Your task to perform on an android device: add a contact in the contacts app Image 0: 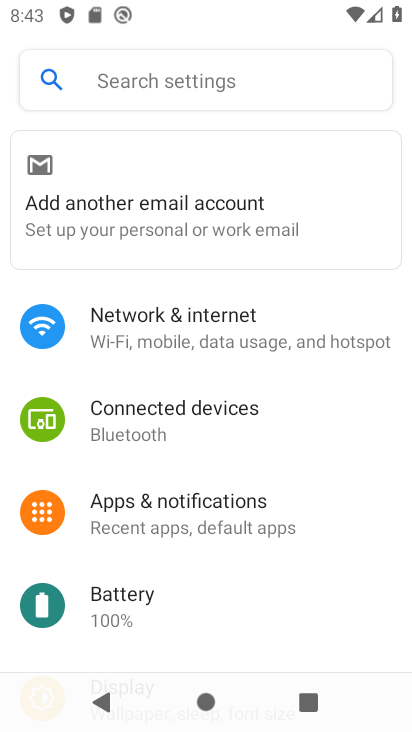
Step 0: press home button
Your task to perform on an android device: add a contact in the contacts app Image 1: 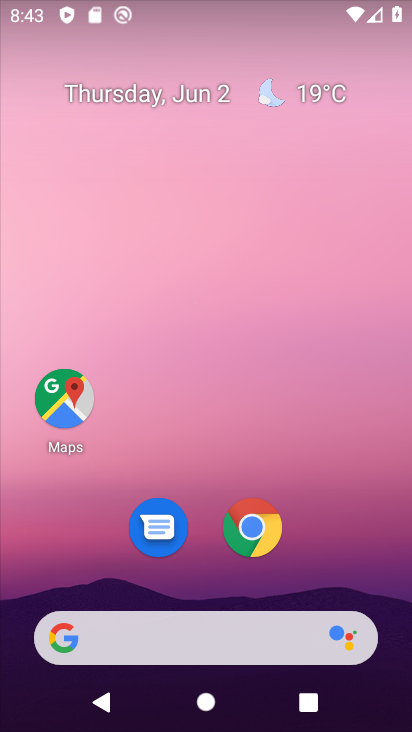
Step 1: drag from (335, 570) to (337, 103)
Your task to perform on an android device: add a contact in the contacts app Image 2: 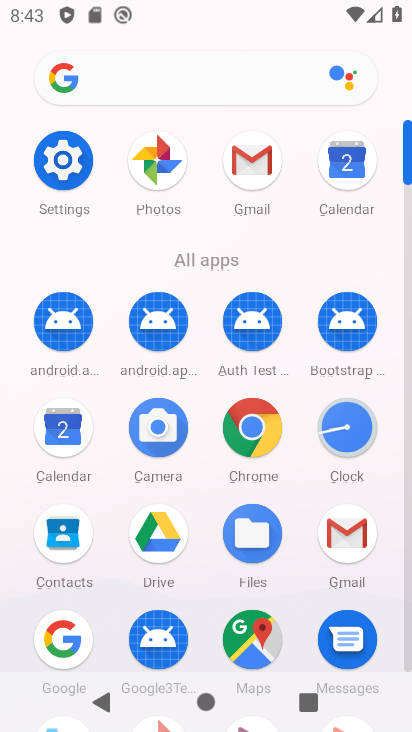
Step 2: click (49, 544)
Your task to perform on an android device: add a contact in the contacts app Image 3: 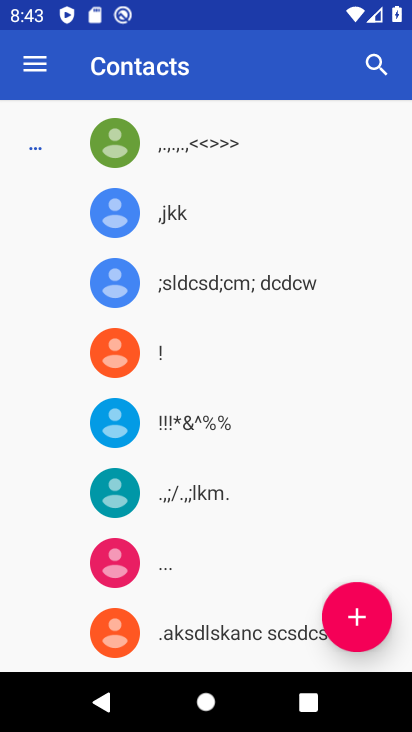
Step 3: click (360, 618)
Your task to perform on an android device: add a contact in the contacts app Image 4: 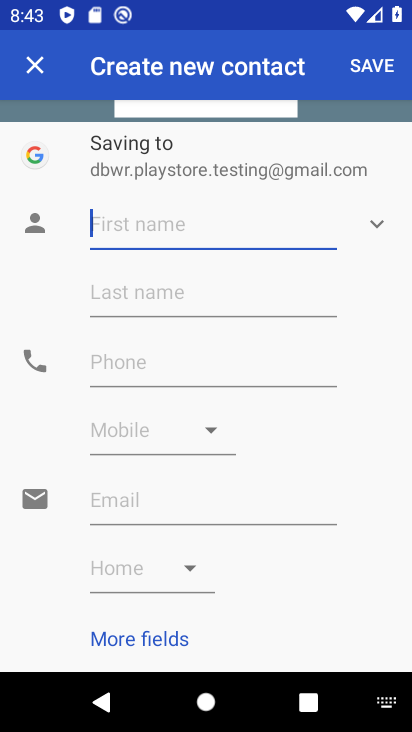
Step 4: type "furry"
Your task to perform on an android device: add a contact in the contacts app Image 5: 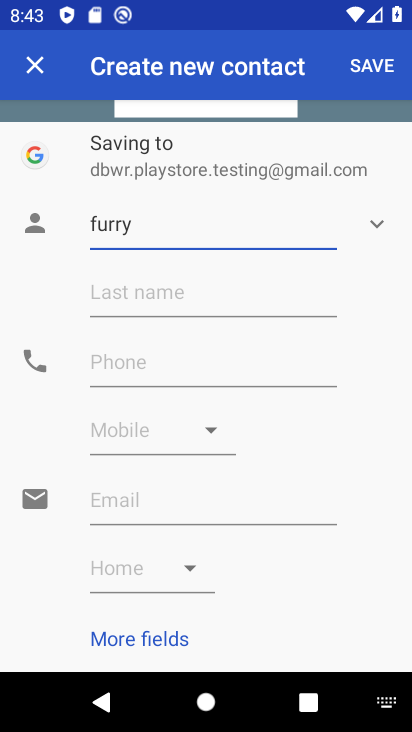
Step 5: click (369, 67)
Your task to perform on an android device: add a contact in the contacts app Image 6: 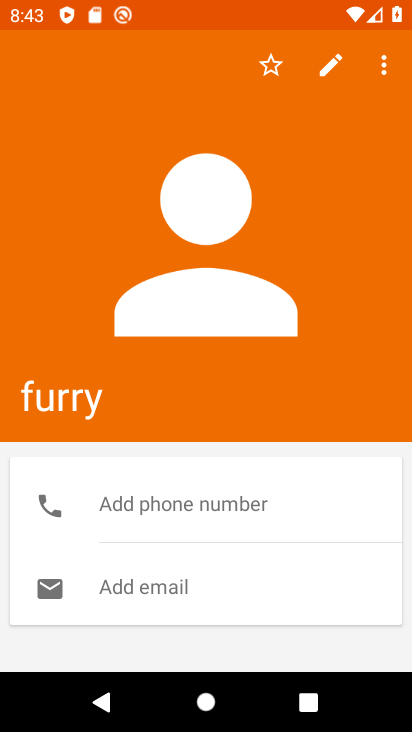
Step 6: task complete